Your task to perform on an android device: set an alarm Image 0: 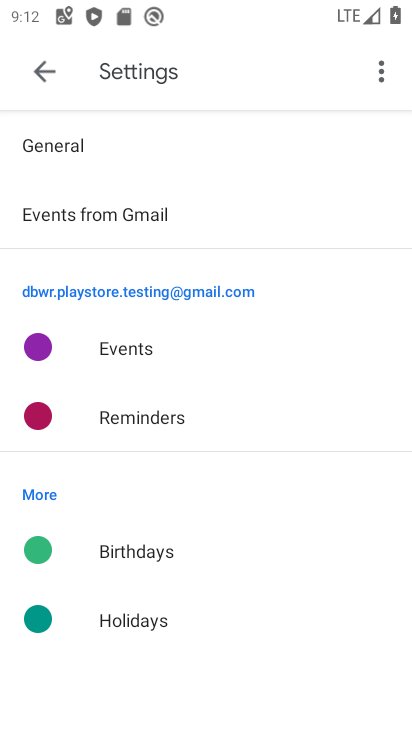
Step 0: press home button
Your task to perform on an android device: set an alarm Image 1: 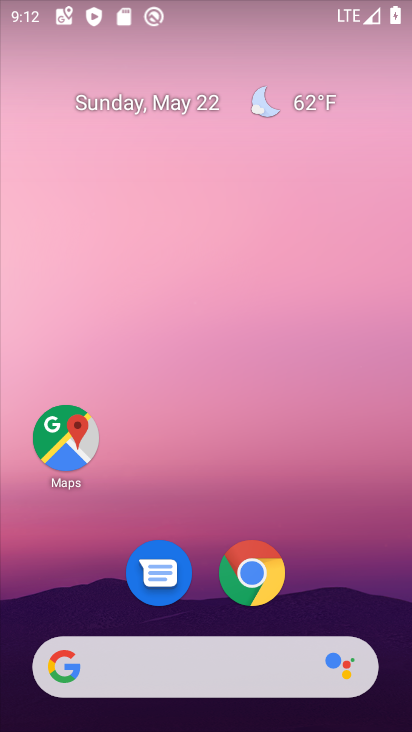
Step 1: drag from (287, 607) to (327, 19)
Your task to perform on an android device: set an alarm Image 2: 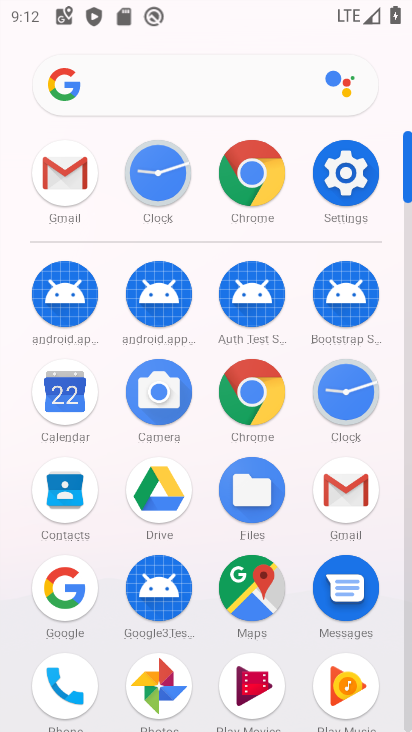
Step 2: click (325, 395)
Your task to perform on an android device: set an alarm Image 3: 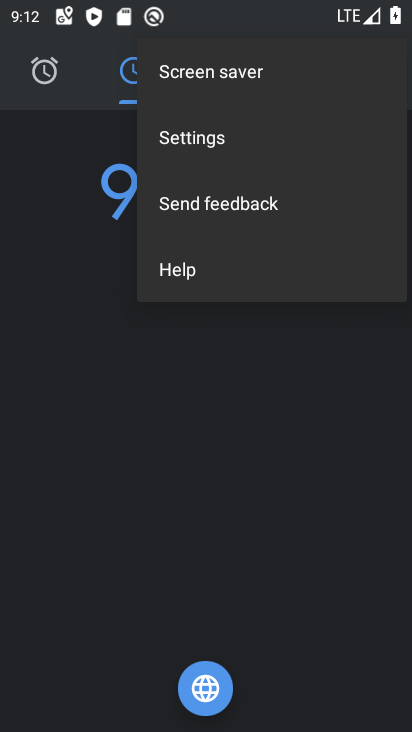
Step 3: click (281, 449)
Your task to perform on an android device: set an alarm Image 4: 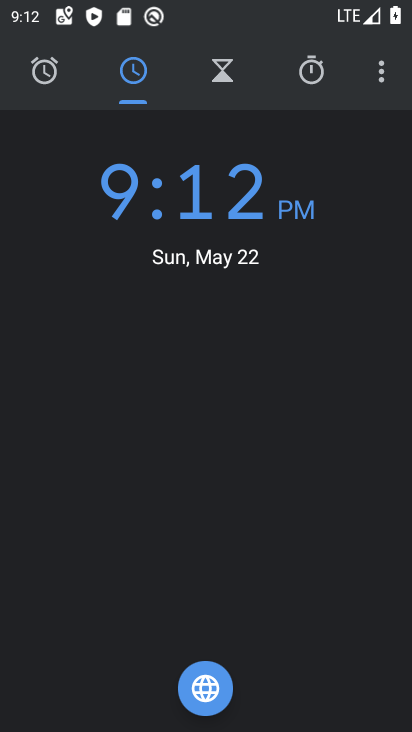
Step 4: click (49, 67)
Your task to perform on an android device: set an alarm Image 5: 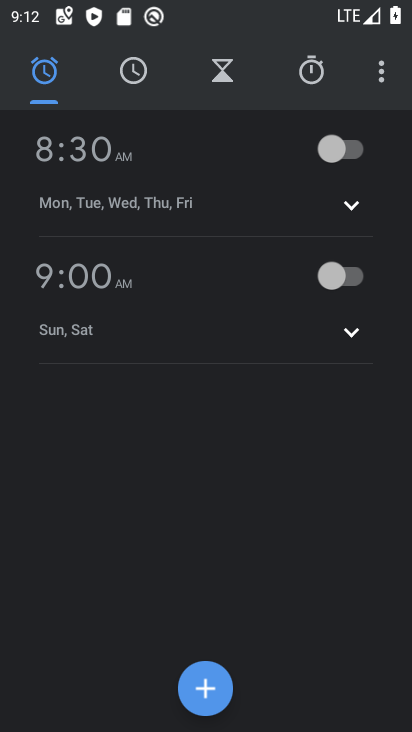
Step 5: click (357, 145)
Your task to perform on an android device: set an alarm Image 6: 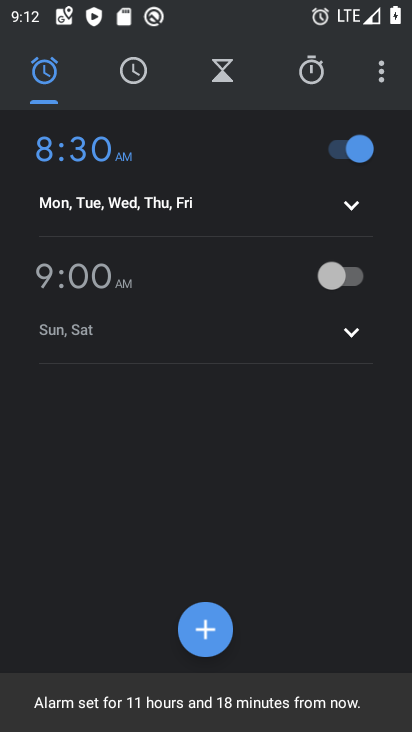
Step 6: task complete